Your task to perform on an android device: Open calendar and show me the first week of next month Image 0: 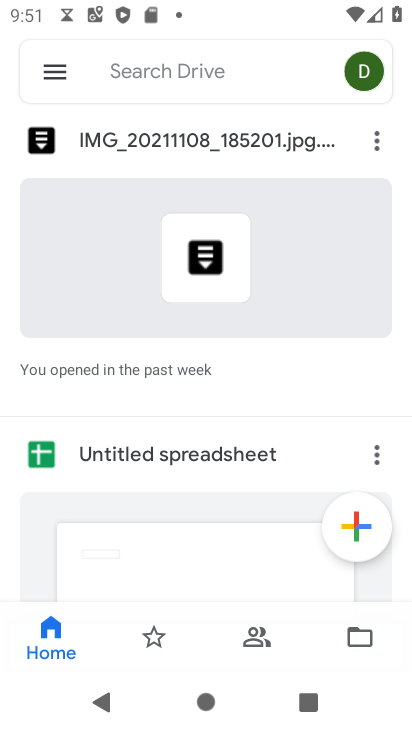
Step 0: press home button
Your task to perform on an android device: Open calendar and show me the first week of next month Image 1: 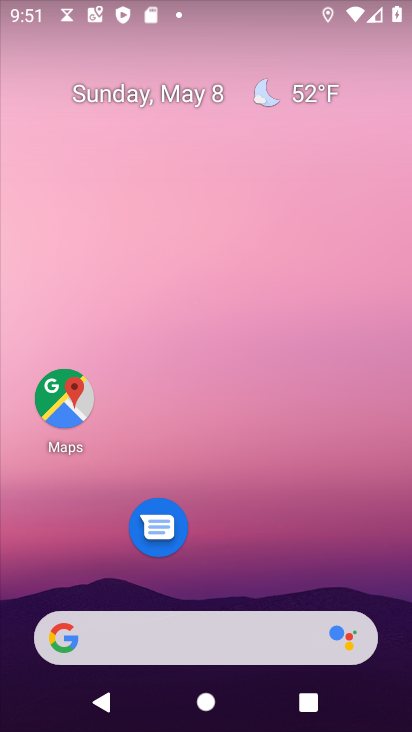
Step 1: drag from (225, 308) to (244, 137)
Your task to perform on an android device: Open calendar and show me the first week of next month Image 2: 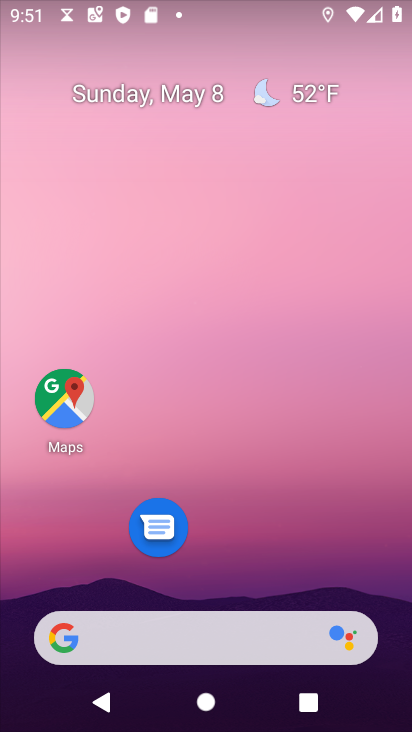
Step 2: drag from (229, 530) to (256, 4)
Your task to perform on an android device: Open calendar and show me the first week of next month Image 3: 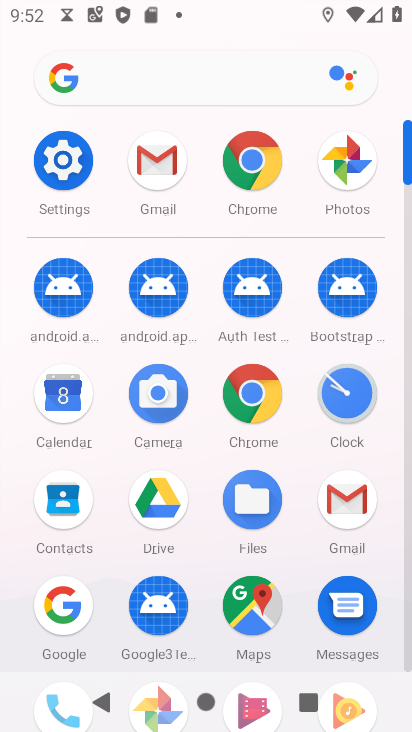
Step 3: click (63, 397)
Your task to perform on an android device: Open calendar and show me the first week of next month Image 4: 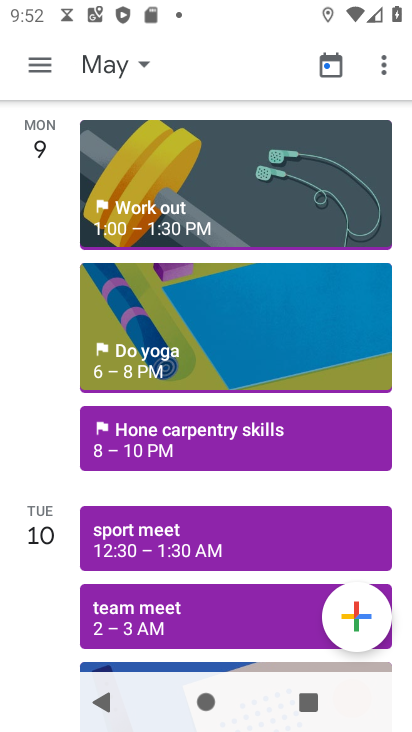
Step 4: click (332, 74)
Your task to perform on an android device: Open calendar and show me the first week of next month Image 5: 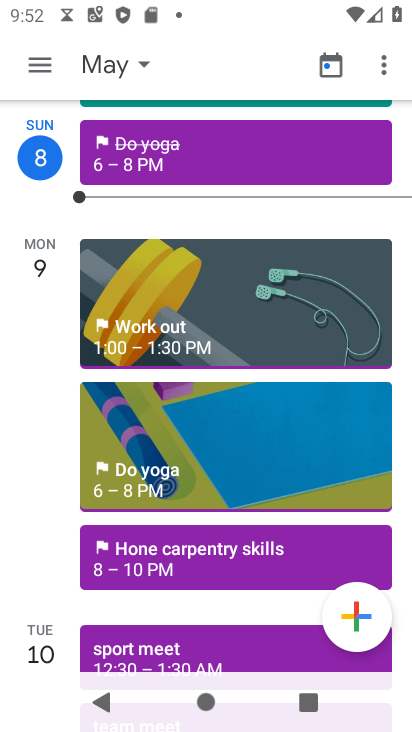
Step 5: click (142, 64)
Your task to perform on an android device: Open calendar and show me the first week of next month Image 6: 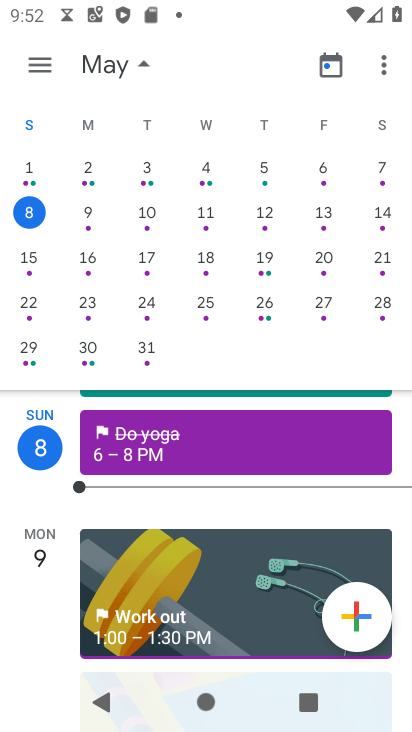
Step 6: drag from (300, 260) to (1, 240)
Your task to perform on an android device: Open calendar and show me the first week of next month Image 7: 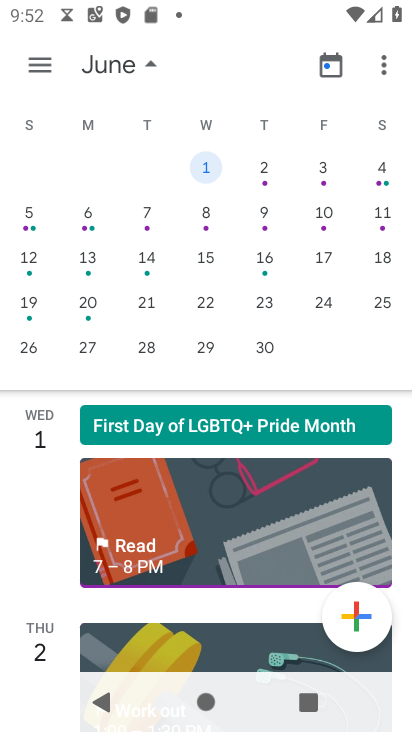
Step 7: click (89, 210)
Your task to perform on an android device: Open calendar and show me the first week of next month Image 8: 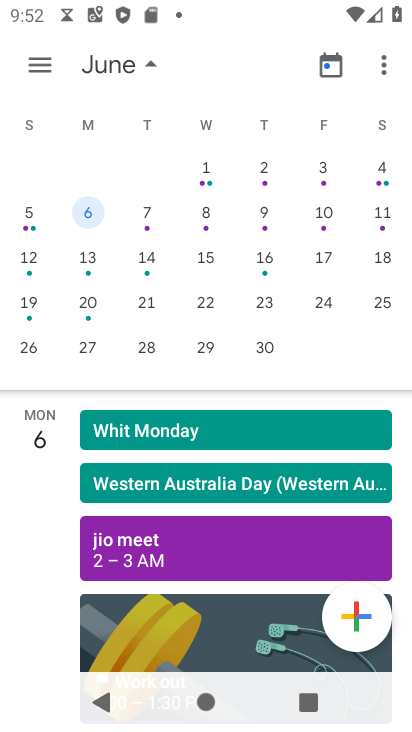
Step 8: click (43, 64)
Your task to perform on an android device: Open calendar and show me the first week of next month Image 9: 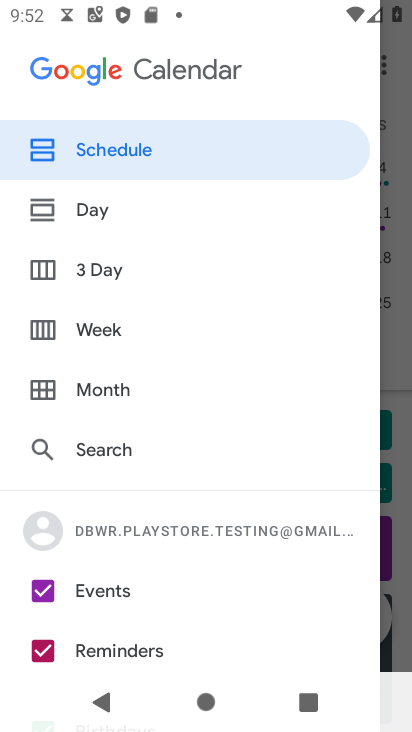
Step 9: click (117, 320)
Your task to perform on an android device: Open calendar and show me the first week of next month Image 10: 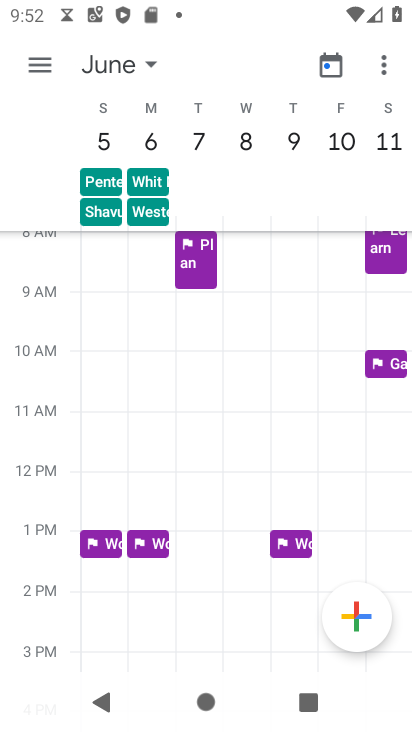
Step 10: task complete